Your task to perform on an android device: choose inbox layout in the gmail app Image 0: 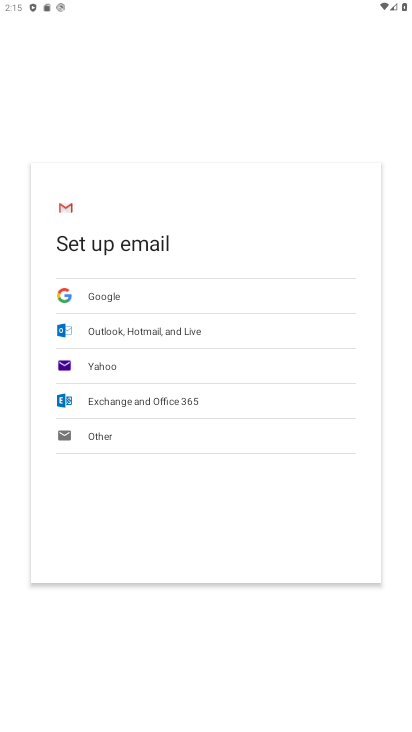
Step 0: press home button
Your task to perform on an android device: choose inbox layout in the gmail app Image 1: 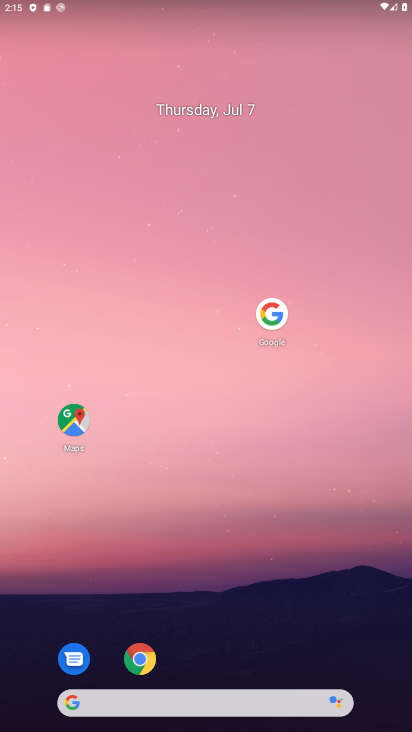
Step 1: drag from (250, 544) to (226, 148)
Your task to perform on an android device: choose inbox layout in the gmail app Image 2: 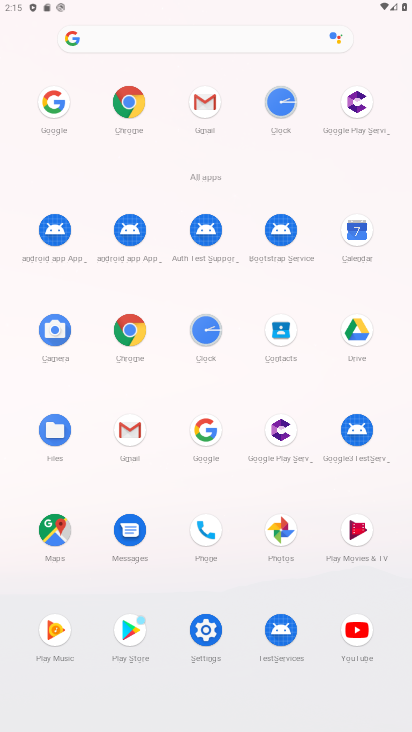
Step 2: drag from (203, 106) to (144, 151)
Your task to perform on an android device: choose inbox layout in the gmail app Image 3: 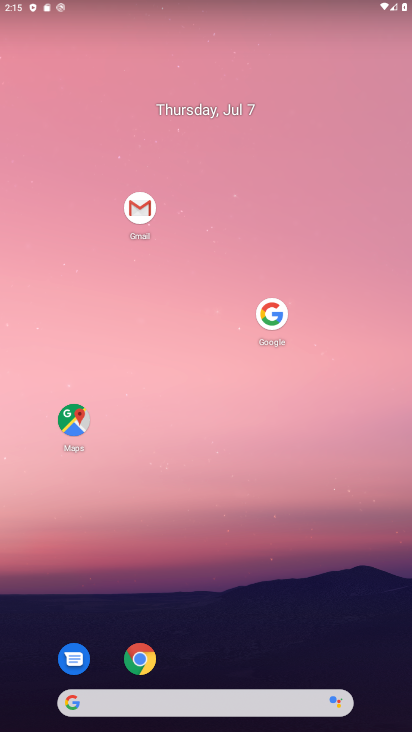
Step 3: click (139, 199)
Your task to perform on an android device: choose inbox layout in the gmail app Image 4: 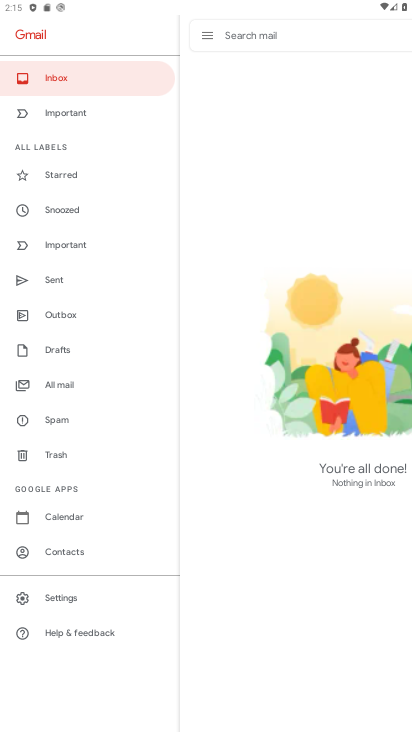
Step 4: click (84, 587)
Your task to perform on an android device: choose inbox layout in the gmail app Image 5: 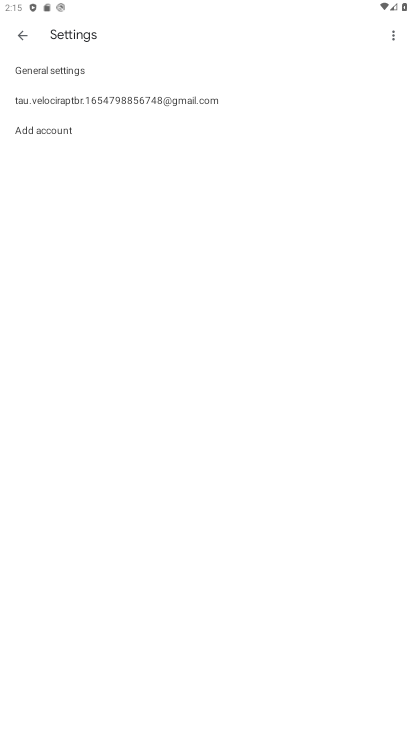
Step 5: click (122, 93)
Your task to perform on an android device: choose inbox layout in the gmail app Image 6: 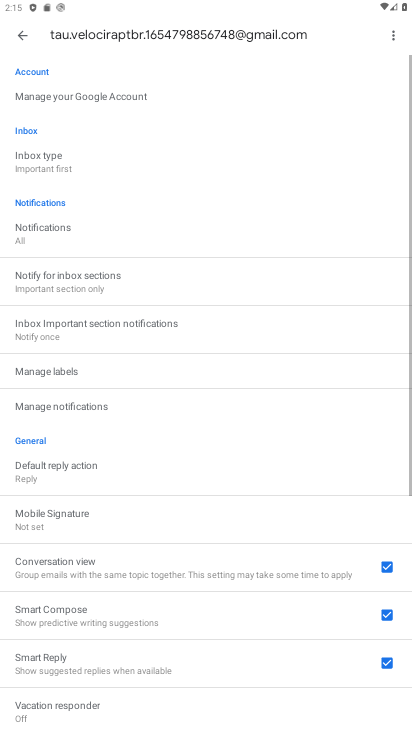
Step 6: click (107, 159)
Your task to perform on an android device: choose inbox layout in the gmail app Image 7: 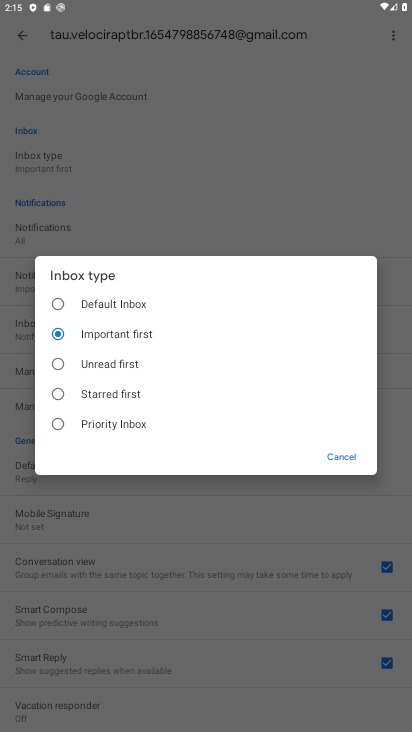
Step 7: task complete